Your task to perform on an android device: Open maps Image 0: 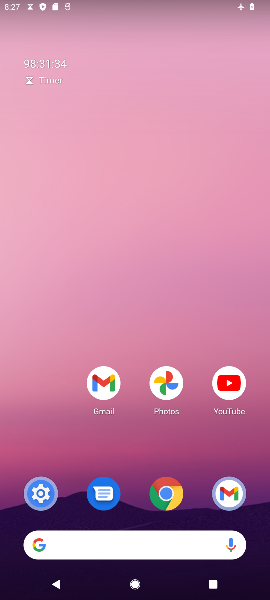
Step 0: drag from (140, 513) to (156, 118)
Your task to perform on an android device: Open maps Image 1: 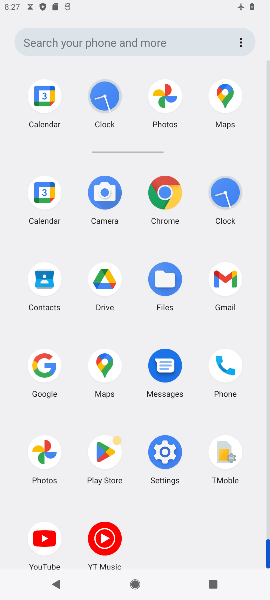
Step 1: click (112, 363)
Your task to perform on an android device: Open maps Image 2: 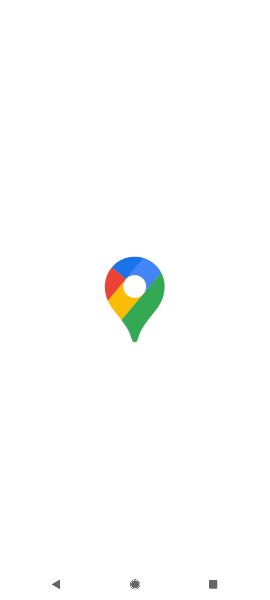
Step 2: task complete